Your task to perform on an android device: empty trash in the gmail app Image 0: 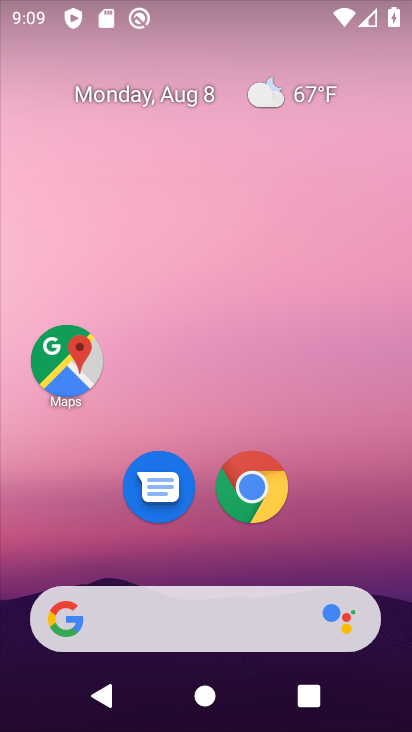
Step 0: drag from (202, 579) to (203, 29)
Your task to perform on an android device: empty trash in the gmail app Image 1: 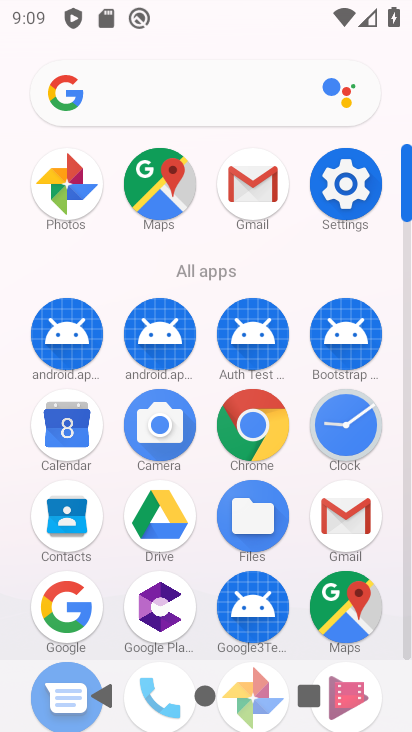
Step 1: click (341, 516)
Your task to perform on an android device: empty trash in the gmail app Image 2: 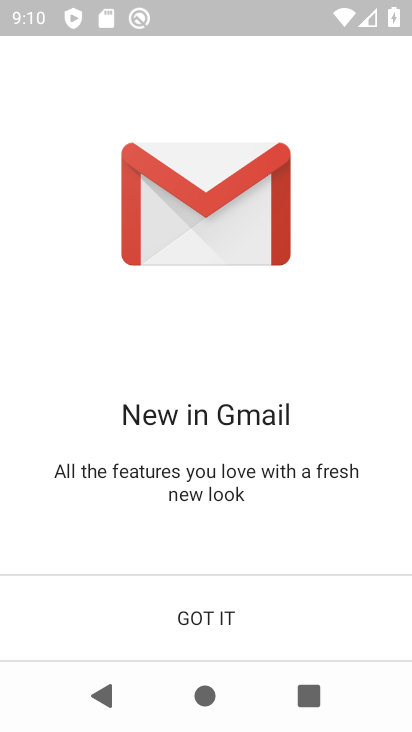
Step 2: click (210, 616)
Your task to perform on an android device: empty trash in the gmail app Image 3: 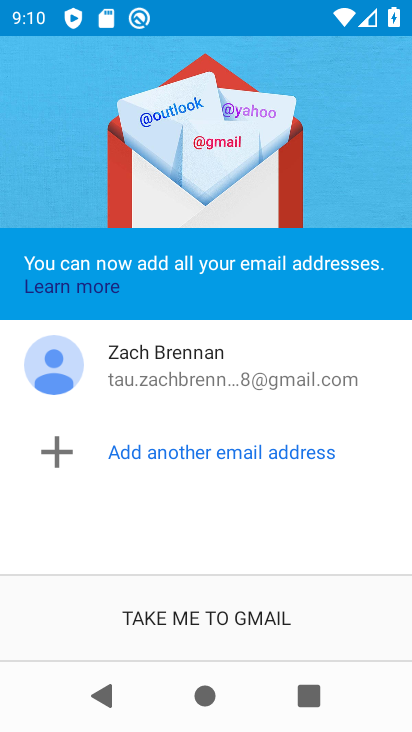
Step 3: click (207, 607)
Your task to perform on an android device: empty trash in the gmail app Image 4: 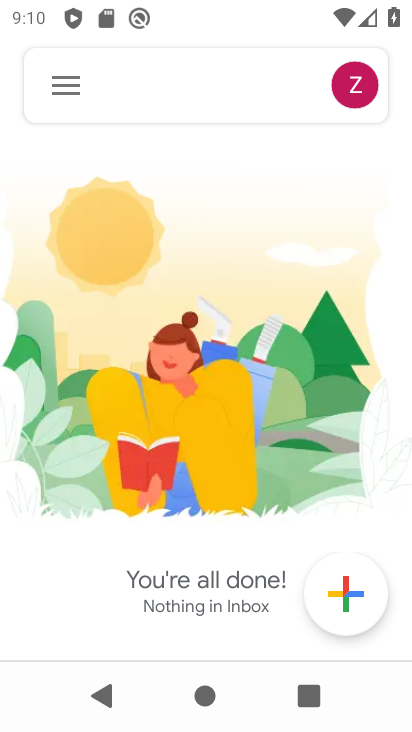
Step 4: click (60, 82)
Your task to perform on an android device: empty trash in the gmail app Image 5: 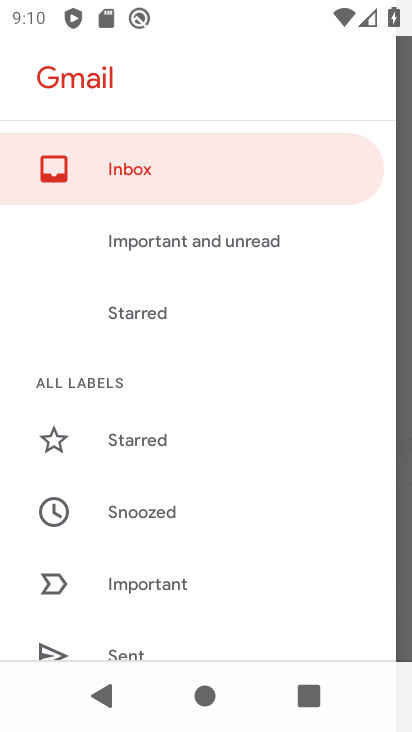
Step 5: drag from (122, 590) to (142, 181)
Your task to perform on an android device: empty trash in the gmail app Image 6: 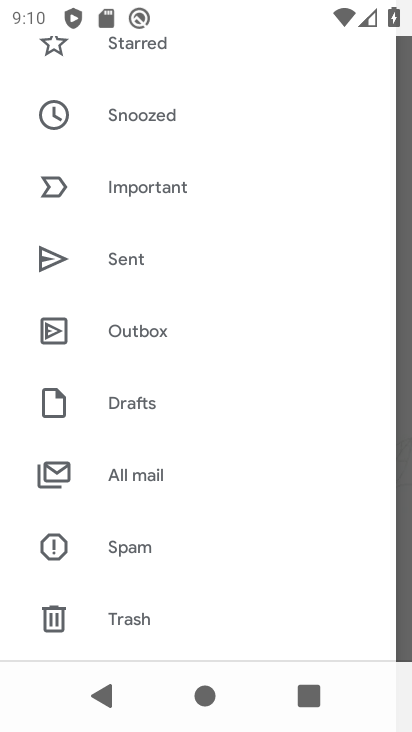
Step 6: click (131, 613)
Your task to perform on an android device: empty trash in the gmail app Image 7: 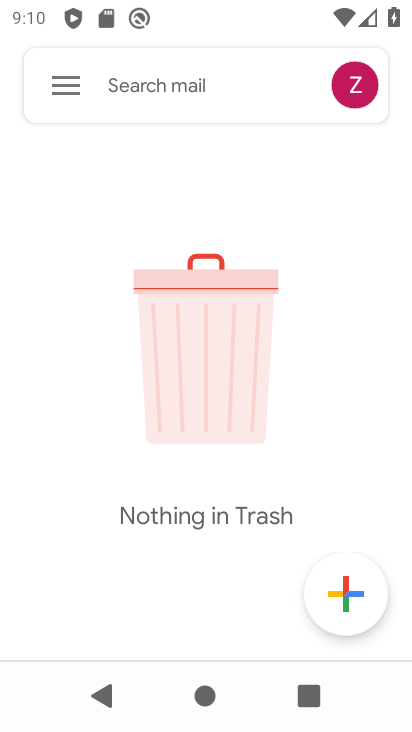
Step 7: task complete